Your task to perform on an android device: Go to eBay Image 0: 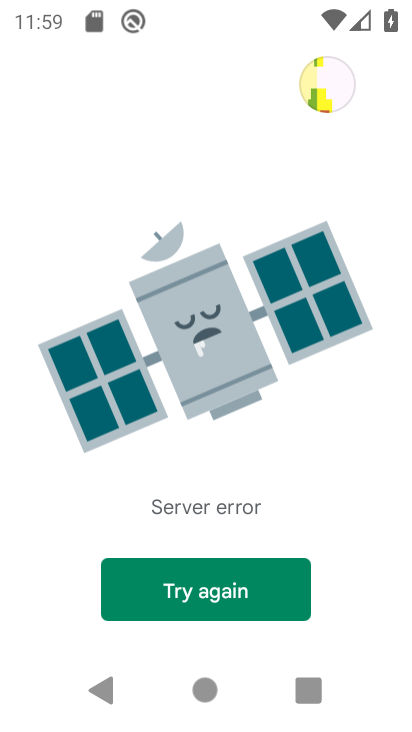
Step 0: press home button
Your task to perform on an android device: Go to eBay Image 1: 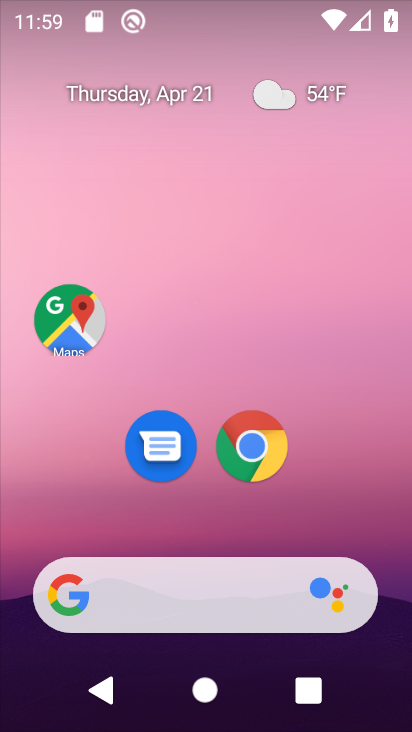
Step 1: click (264, 444)
Your task to perform on an android device: Go to eBay Image 2: 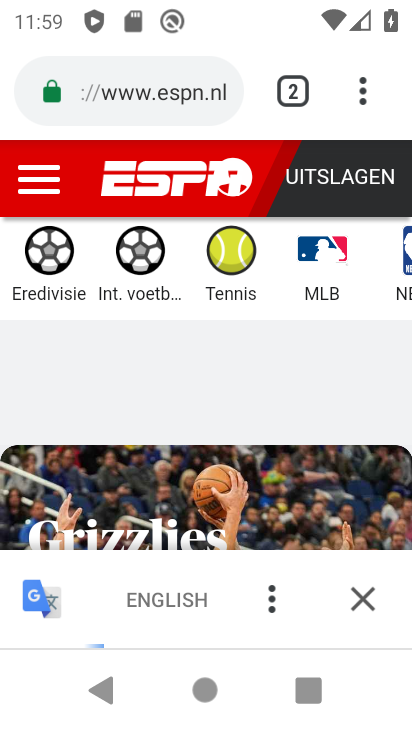
Step 2: click (210, 101)
Your task to perform on an android device: Go to eBay Image 3: 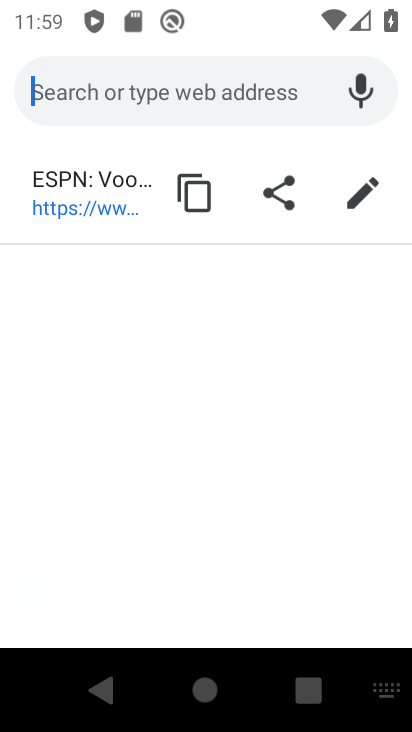
Step 3: click (187, 93)
Your task to perform on an android device: Go to eBay Image 4: 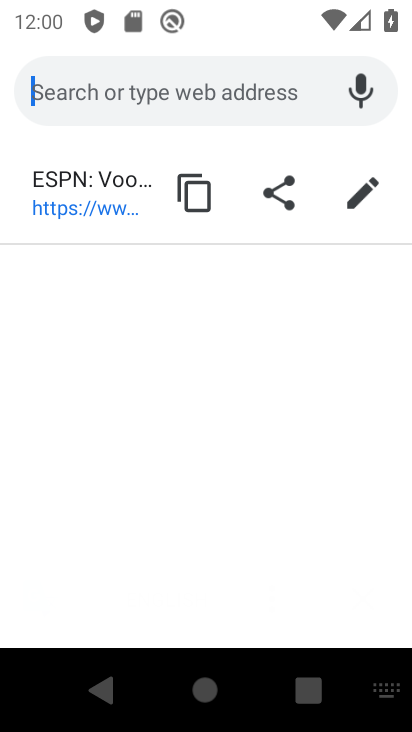
Step 4: type "eBay"
Your task to perform on an android device: Go to eBay Image 5: 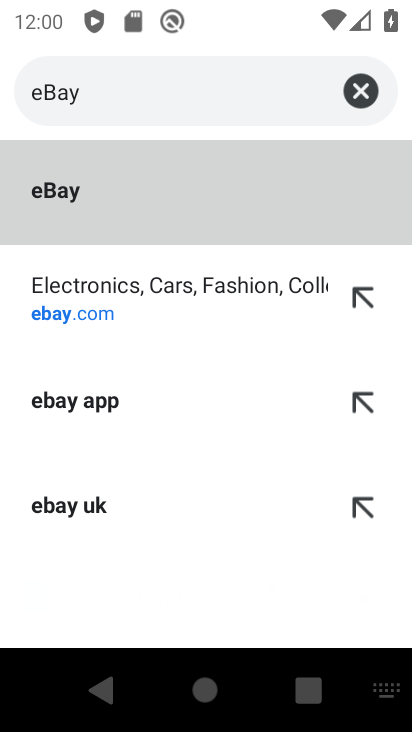
Step 5: click (79, 303)
Your task to perform on an android device: Go to eBay Image 6: 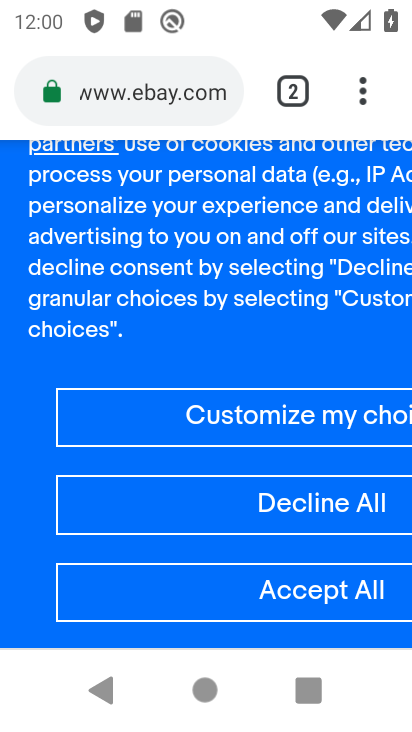
Step 6: task complete